Your task to perform on an android device: Open my contact list Image 0: 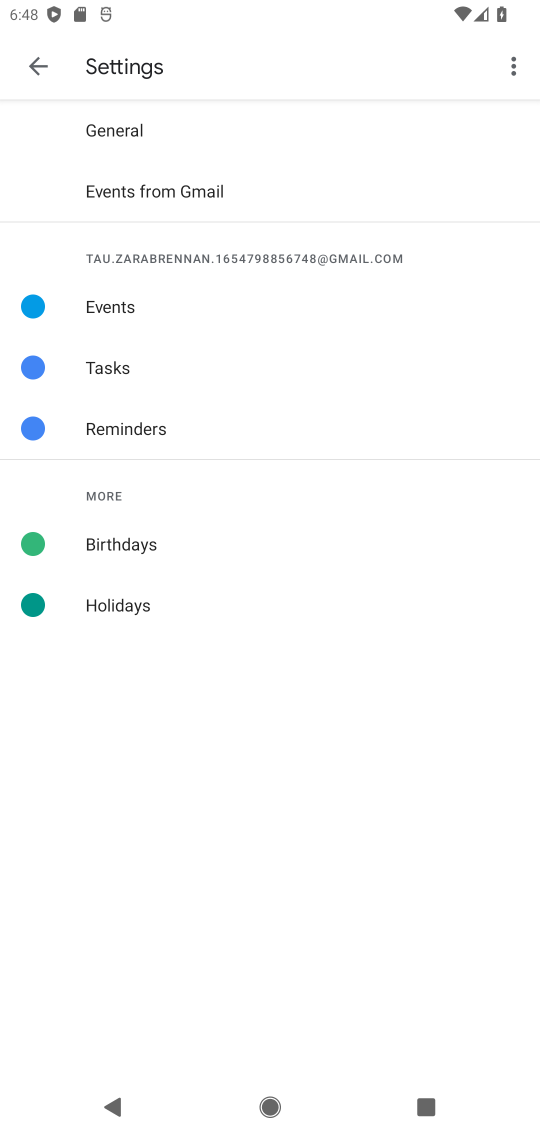
Step 0: press home button
Your task to perform on an android device: Open my contact list Image 1: 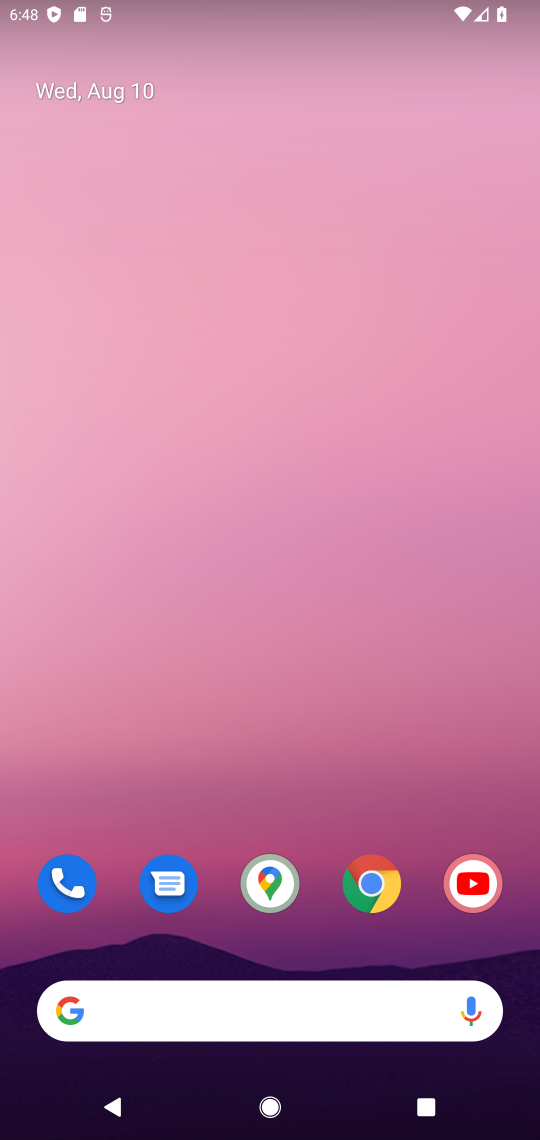
Step 1: click (42, 877)
Your task to perform on an android device: Open my contact list Image 2: 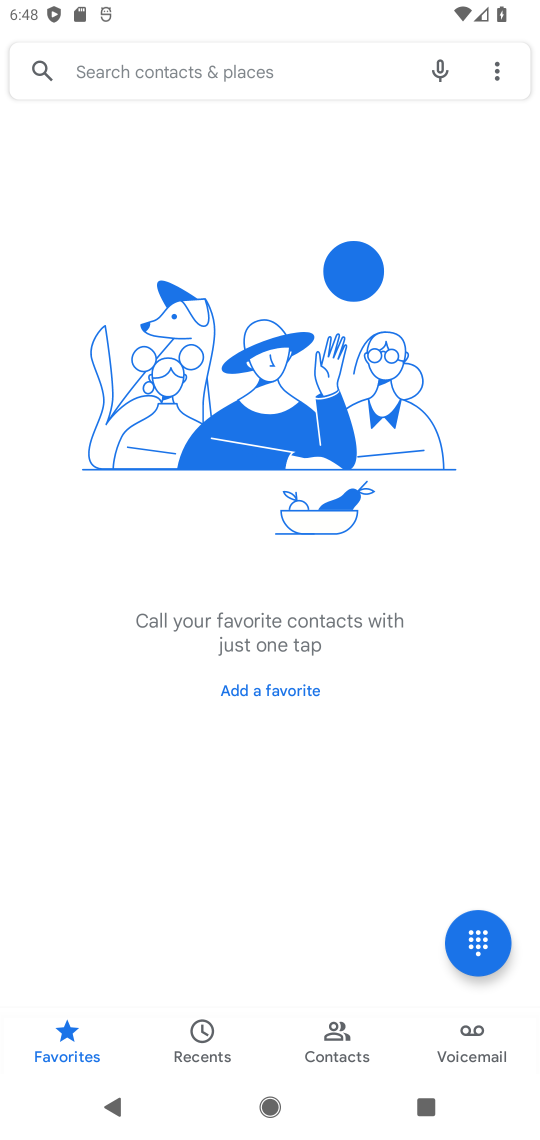
Step 2: click (343, 1042)
Your task to perform on an android device: Open my contact list Image 3: 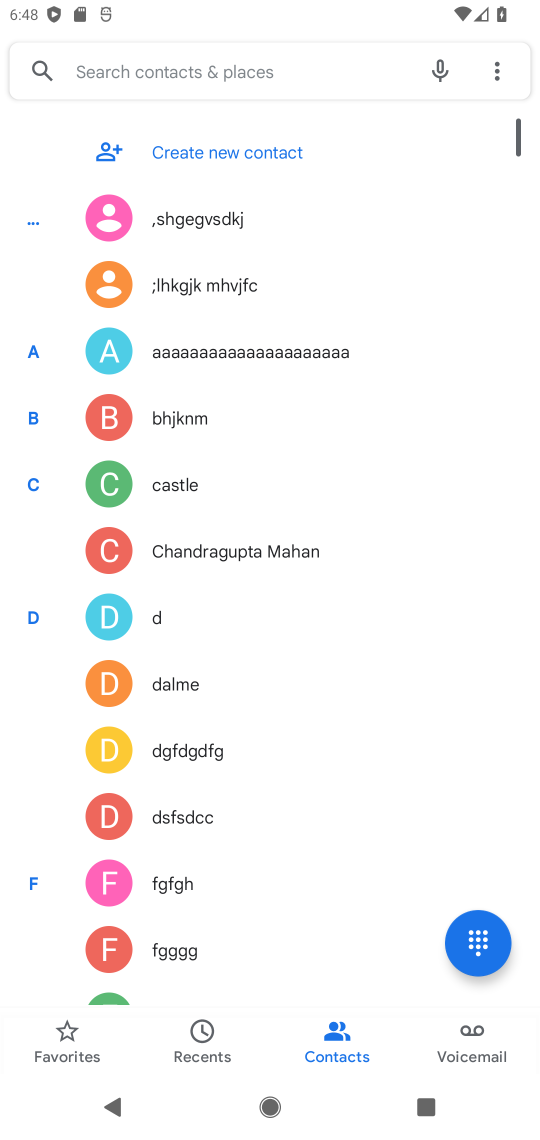
Step 3: click (343, 1042)
Your task to perform on an android device: Open my contact list Image 4: 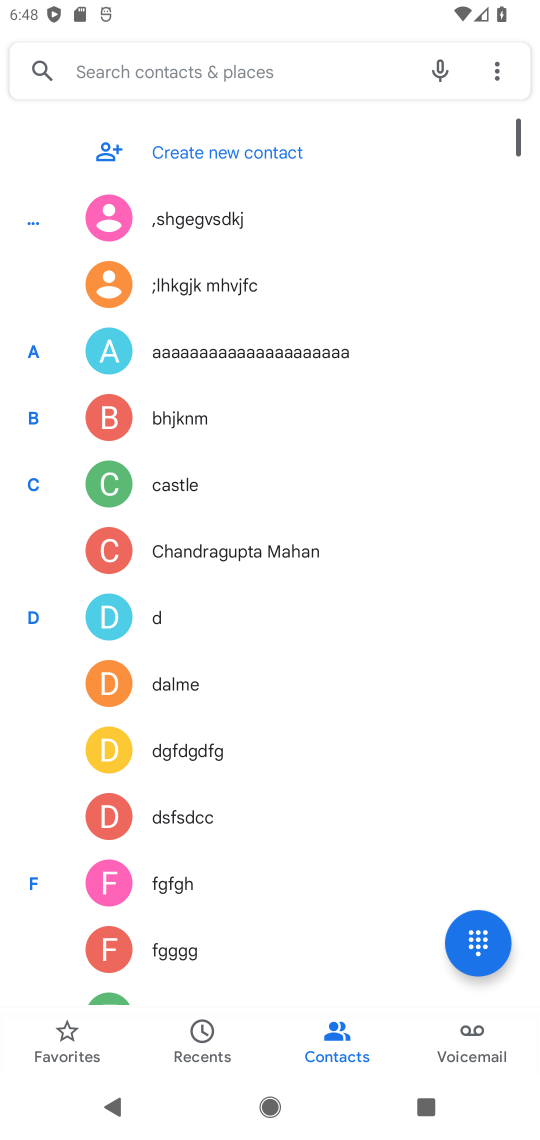
Step 4: task complete